Your task to perform on an android device: Go to internet settings Image 0: 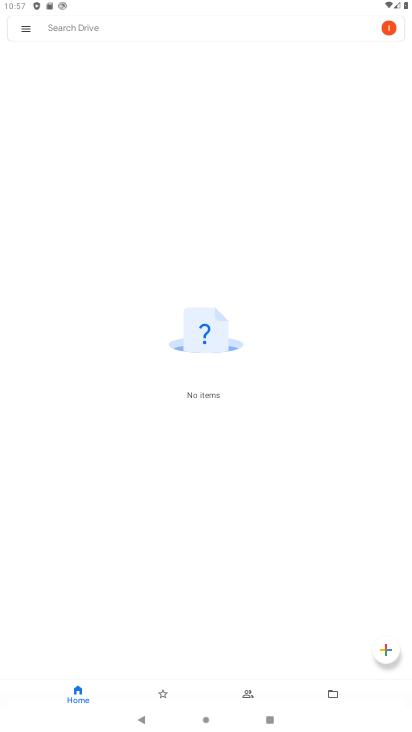
Step 0: press home button
Your task to perform on an android device: Go to internet settings Image 1: 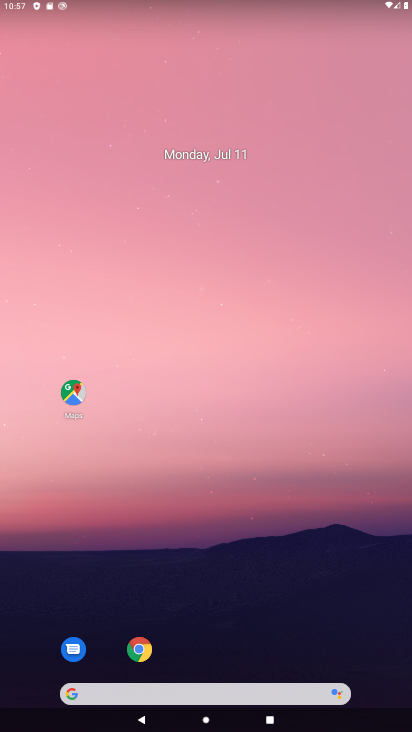
Step 1: drag from (175, 698) to (203, 129)
Your task to perform on an android device: Go to internet settings Image 2: 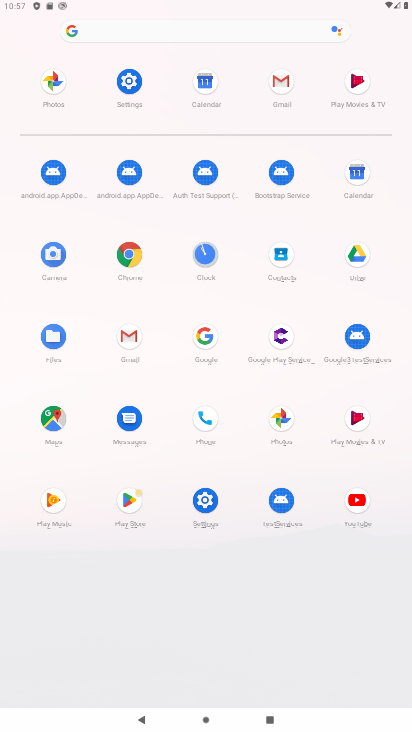
Step 2: click (128, 79)
Your task to perform on an android device: Go to internet settings Image 3: 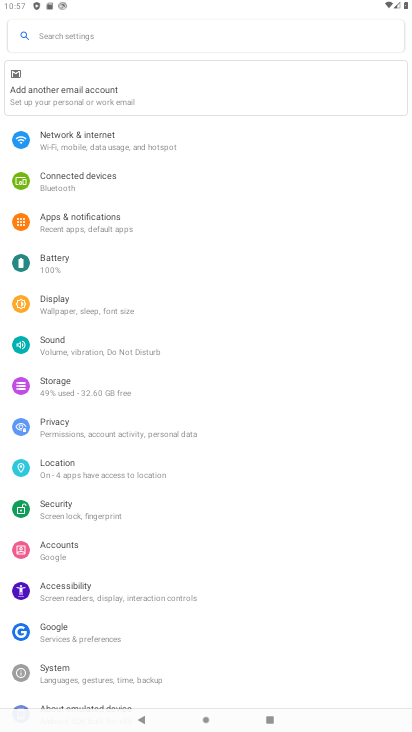
Step 3: drag from (87, 257) to (125, 158)
Your task to perform on an android device: Go to internet settings Image 4: 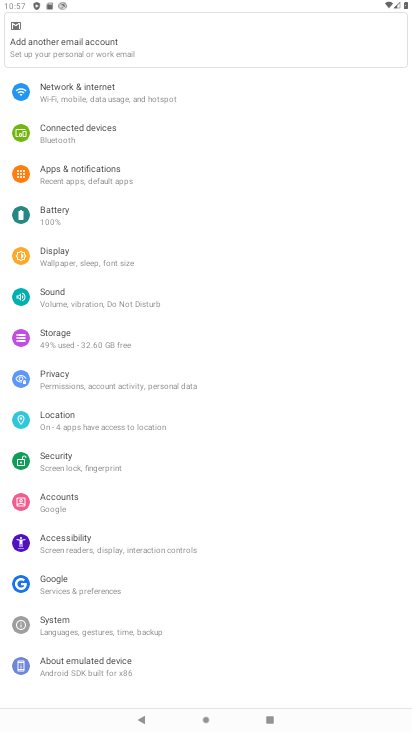
Step 4: click (147, 90)
Your task to perform on an android device: Go to internet settings Image 5: 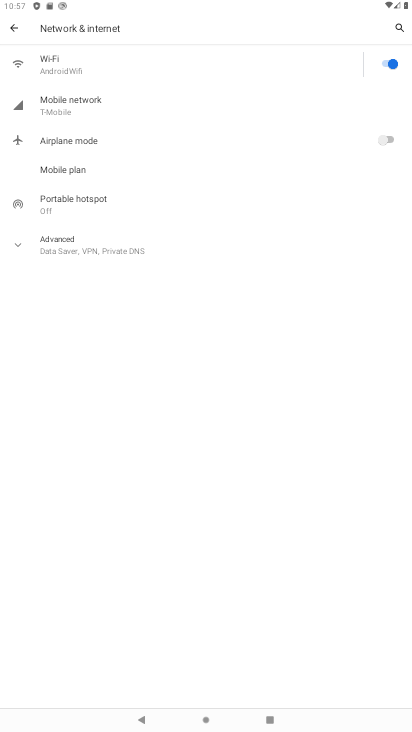
Step 5: task complete